Your task to perform on an android device: Go to location settings Image 0: 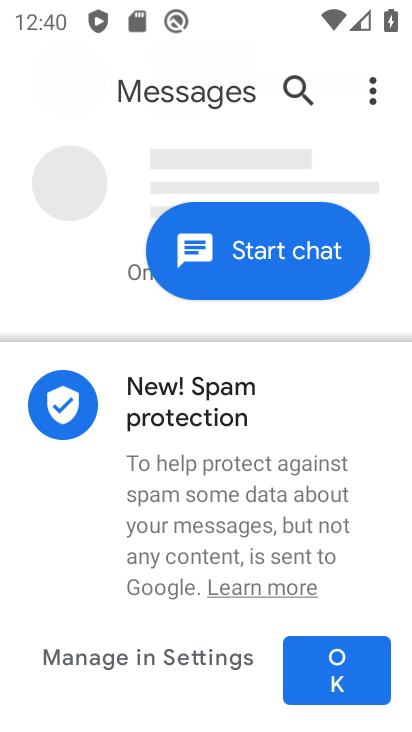
Step 0: drag from (327, 502) to (317, 158)
Your task to perform on an android device: Go to location settings Image 1: 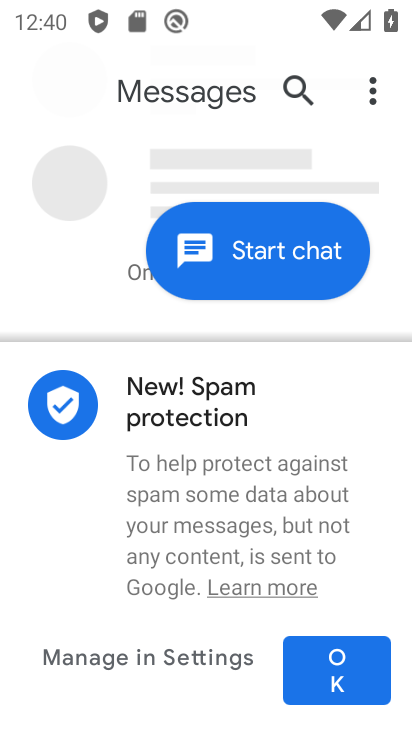
Step 1: press home button
Your task to perform on an android device: Go to location settings Image 2: 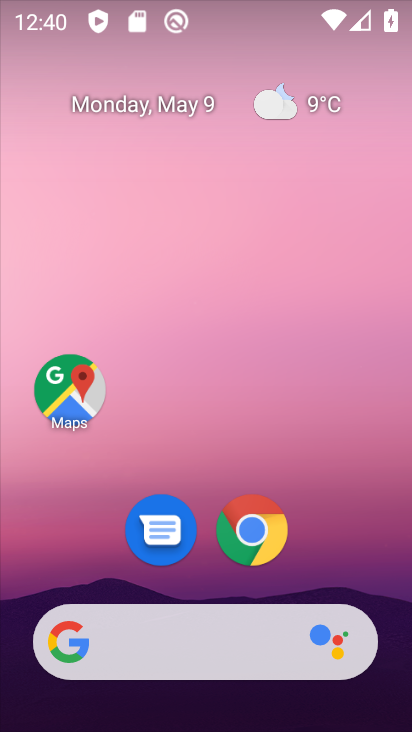
Step 2: drag from (321, 593) to (322, 246)
Your task to perform on an android device: Go to location settings Image 3: 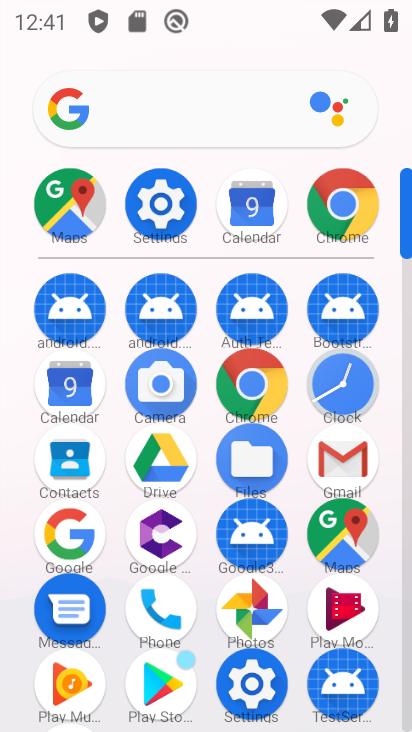
Step 3: click (141, 198)
Your task to perform on an android device: Go to location settings Image 4: 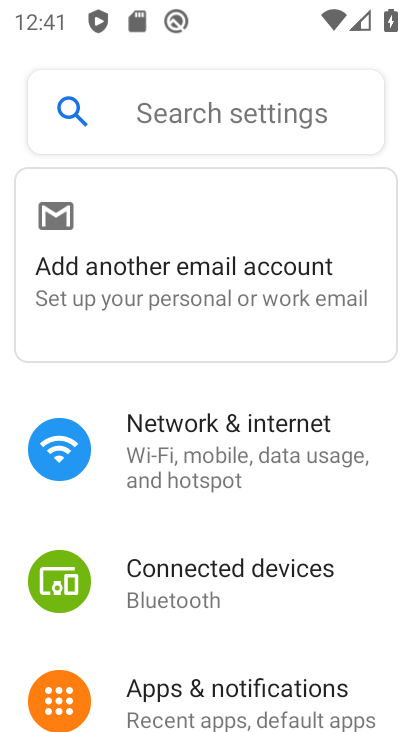
Step 4: drag from (235, 682) to (249, 111)
Your task to perform on an android device: Go to location settings Image 5: 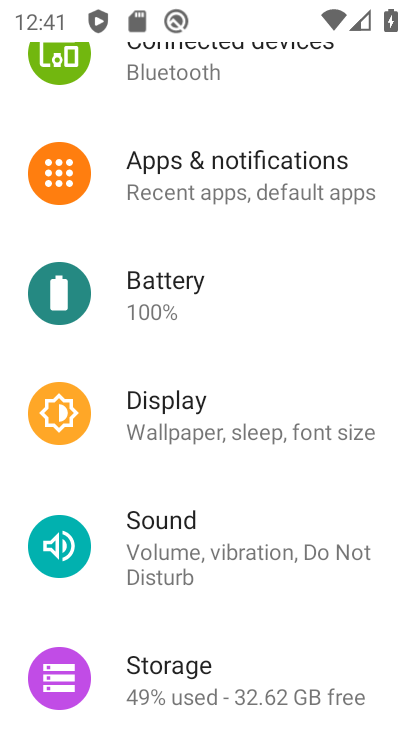
Step 5: drag from (250, 707) to (257, 169)
Your task to perform on an android device: Go to location settings Image 6: 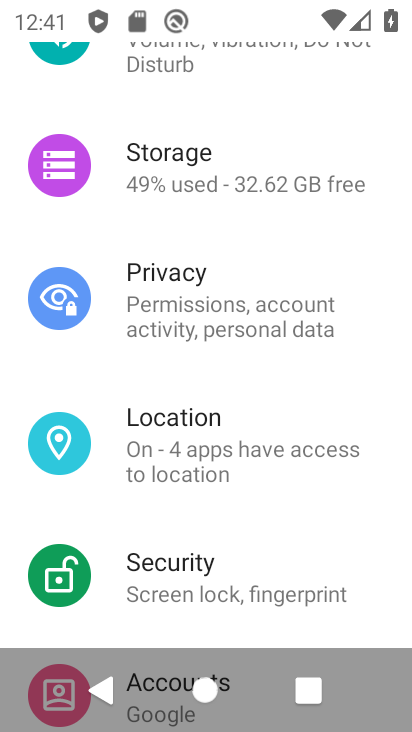
Step 6: click (193, 459)
Your task to perform on an android device: Go to location settings Image 7: 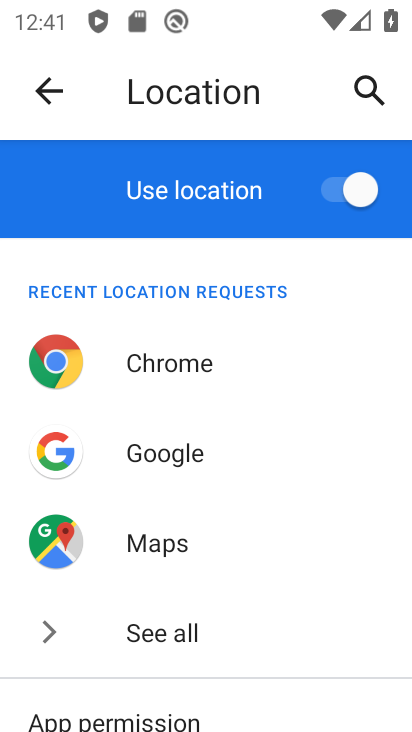
Step 7: task complete